Your task to perform on an android device: Go to wifi settings Image 0: 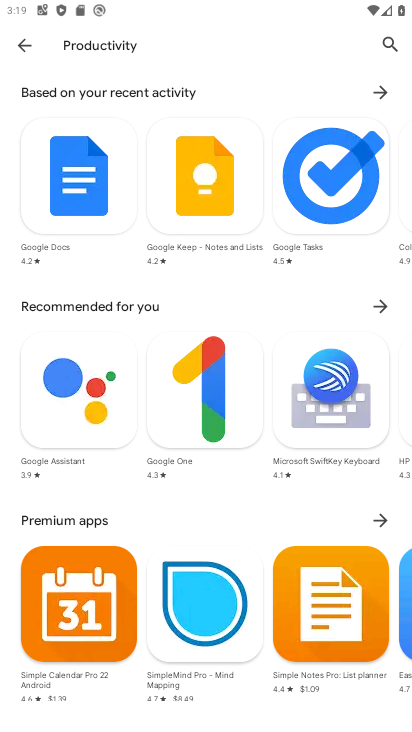
Step 0: press home button
Your task to perform on an android device: Go to wifi settings Image 1: 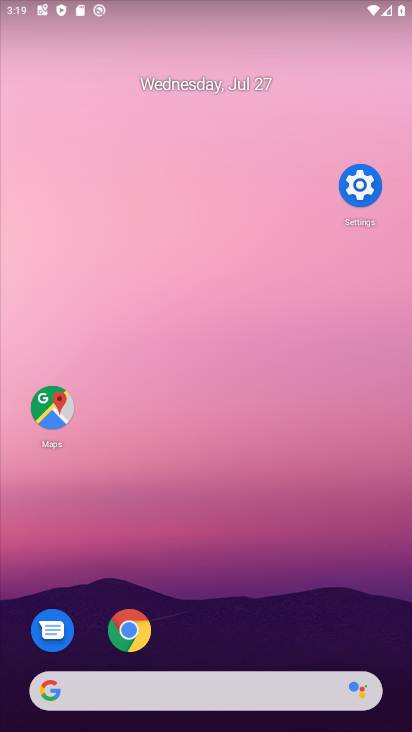
Step 1: press home button
Your task to perform on an android device: Go to wifi settings Image 2: 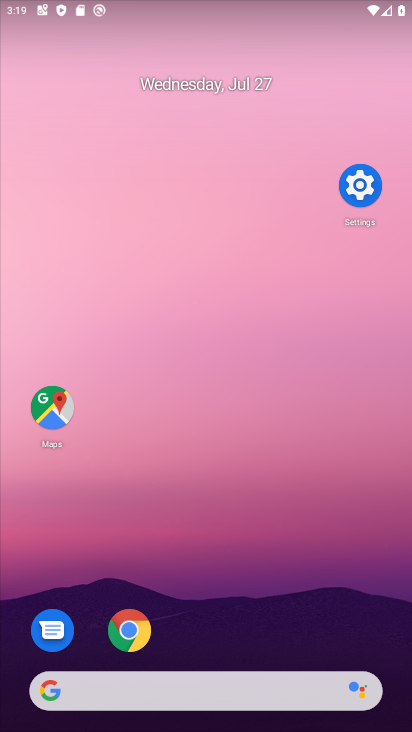
Step 2: drag from (233, 613) to (246, 142)
Your task to perform on an android device: Go to wifi settings Image 3: 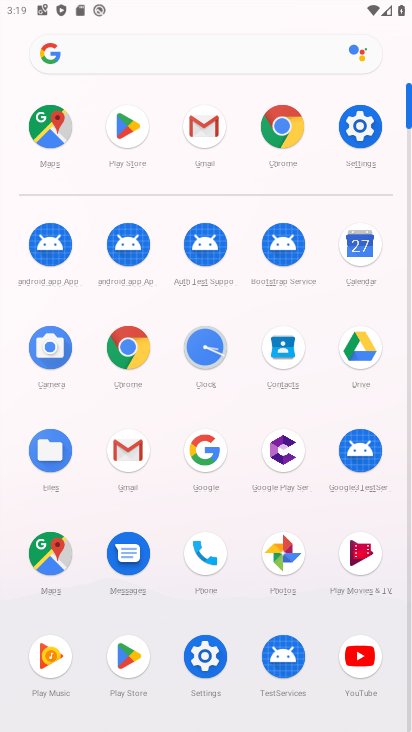
Step 3: click (373, 133)
Your task to perform on an android device: Go to wifi settings Image 4: 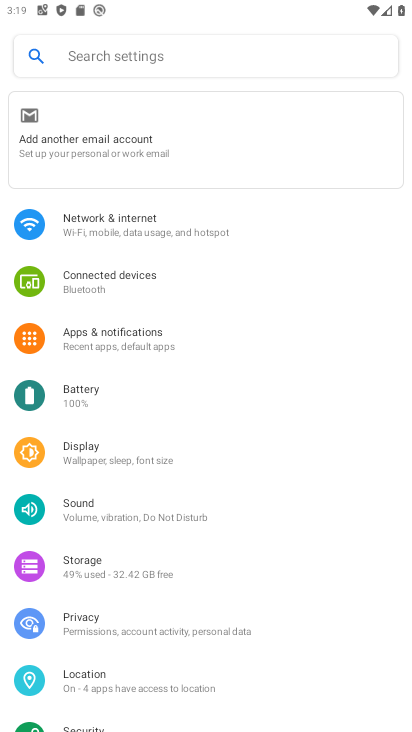
Step 4: click (73, 219)
Your task to perform on an android device: Go to wifi settings Image 5: 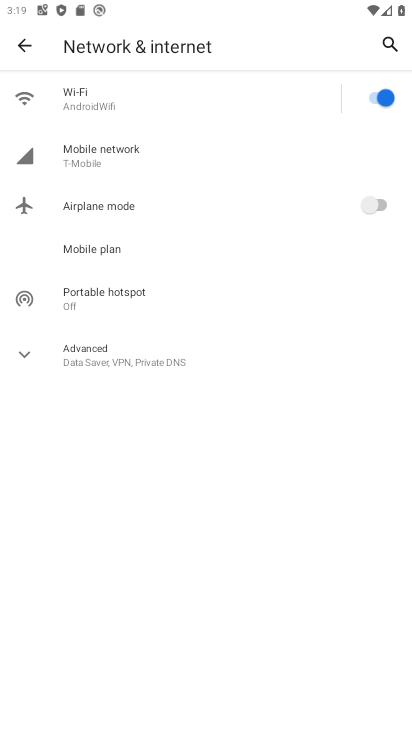
Step 5: task complete